Your task to perform on an android device: turn off javascript in the chrome app Image 0: 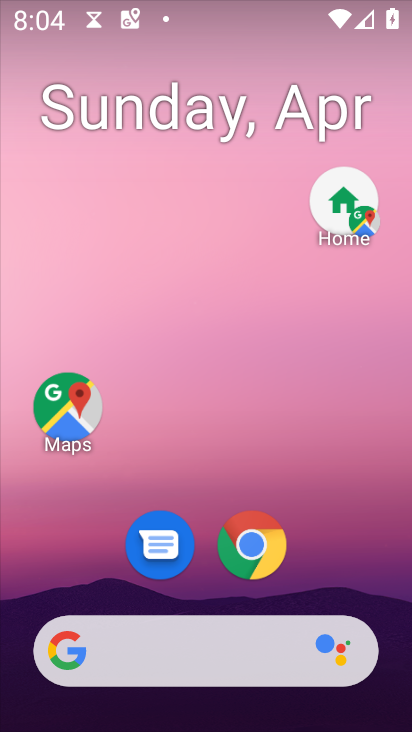
Step 0: drag from (298, 494) to (272, 268)
Your task to perform on an android device: turn off javascript in the chrome app Image 1: 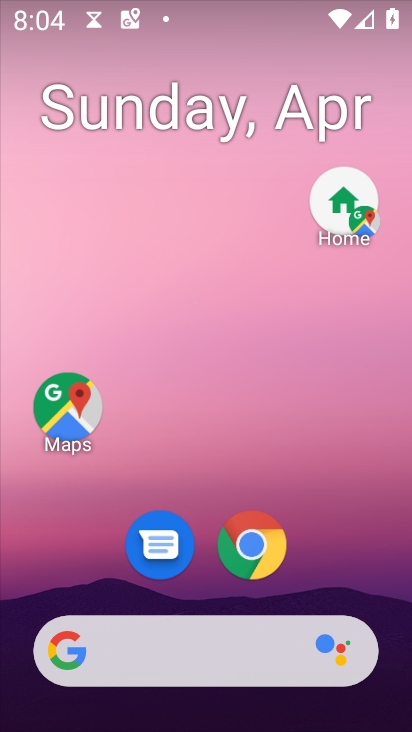
Step 1: drag from (330, 565) to (280, 218)
Your task to perform on an android device: turn off javascript in the chrome app Image 2: 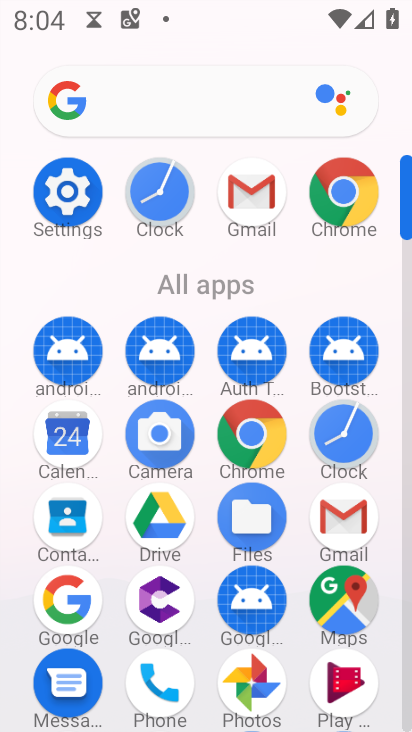
Step 2: click (254, 434)
Your task to perform on an android device: turn off javascript in the chrome app Image 3: 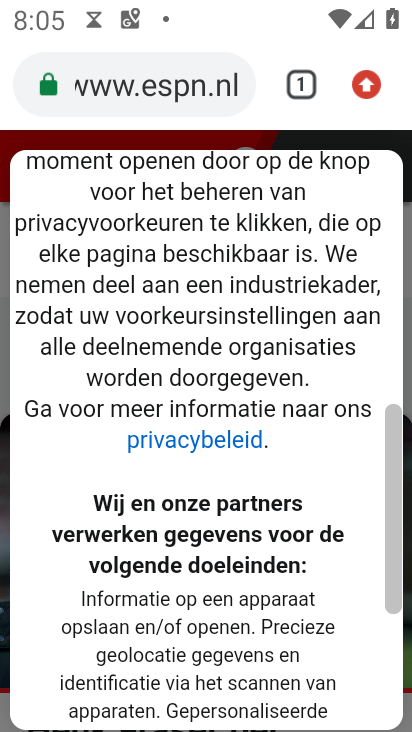
Step 3: click (368, 86)
Your task to perform on an android device: turn off javascript in the chrome app Image 4: 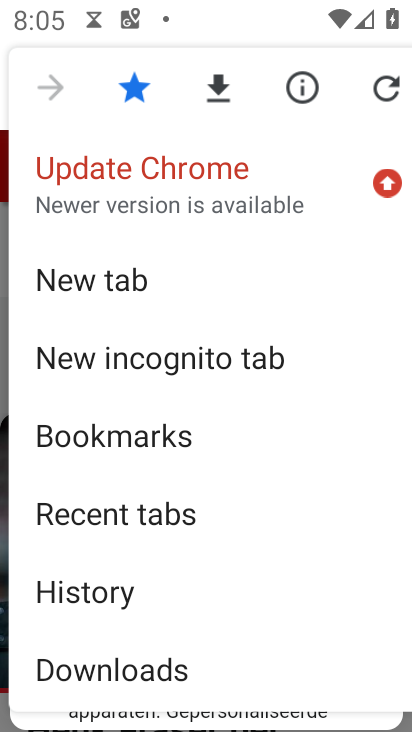
Step 4: drag from (226, 648) to (274, 221)
Your task to perform on an android device: turn off javascript in the chrome app Image 5: 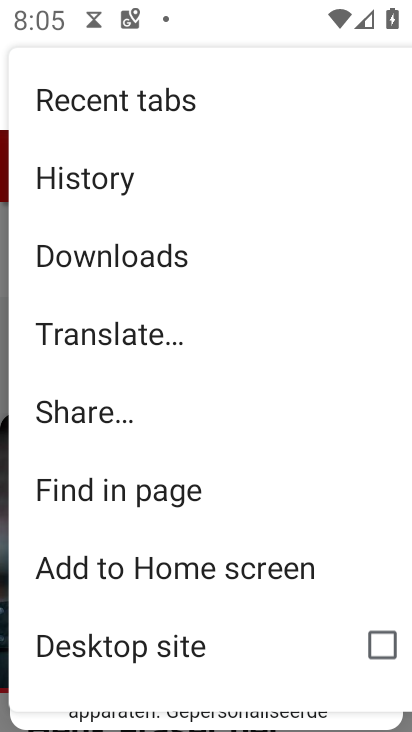
Step 5: drag from (189, 544) to (257, 183)
Your task to perform on an android device: turn off javascript in the chrome app Image 6: 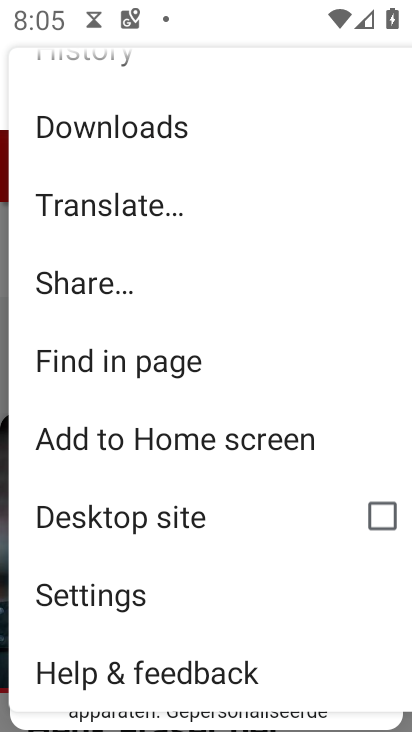
Step 6: click (118, 575)
Your task to perform on an android device: turn off javascript in the chrome app Image 7: 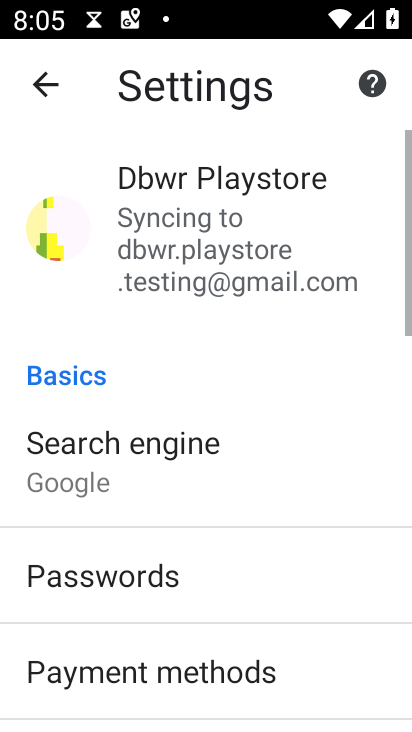
Step 7: drag from (234, 667) to (304, 174)
Your task to perform on an android device: turn off javascript in the chrome app Image 8: 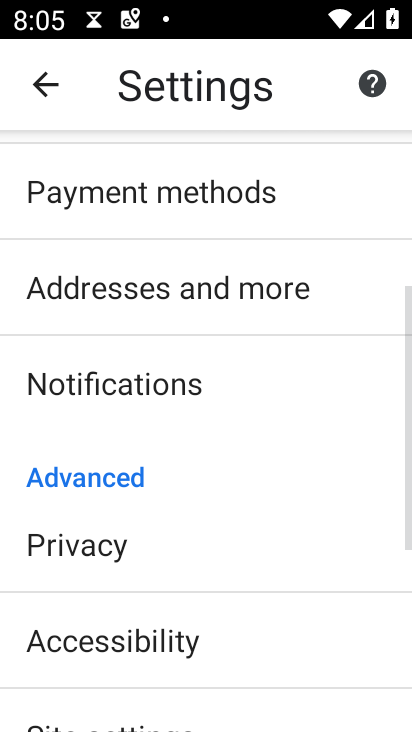
Step 8: drag from (243, 623) to (292, 250)
Your task to perform on an android device: turn off javascript in the chrome app Image 9: 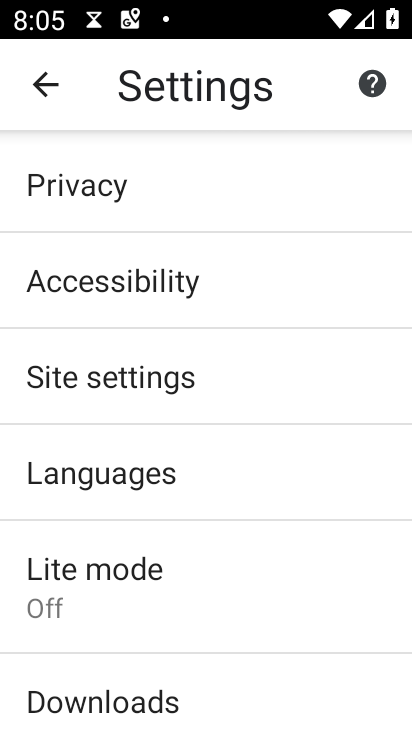
Step 9: click (150, 367)
Your task to perform on an android device: turn off javascript in the chrome app Image 10: 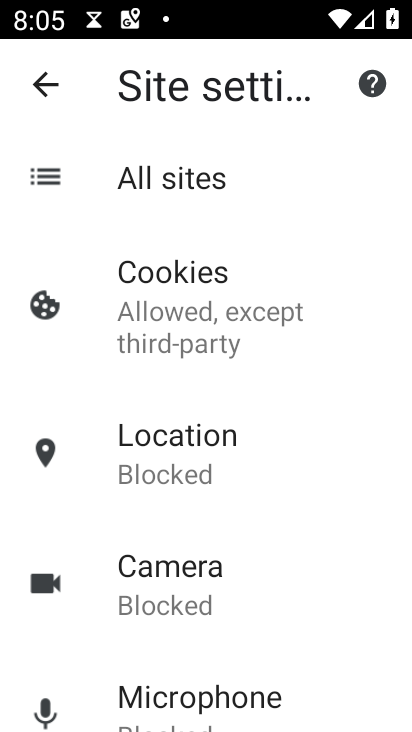
Step 10: drag from (243, 524) to (275, 243)
Your task to perform on an android device: turn off javascript in the chrome app Image 11: 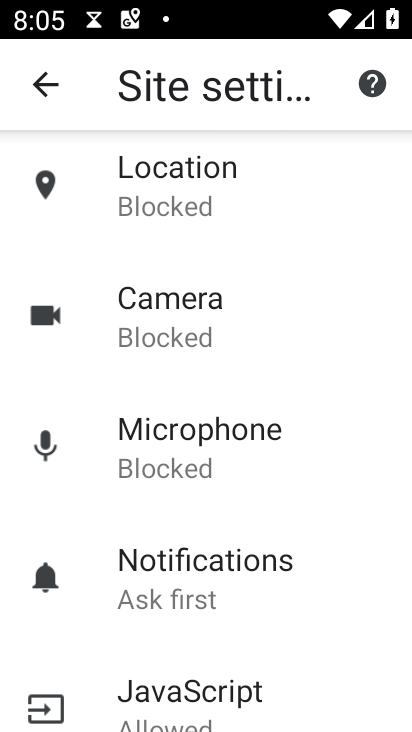
Step 11: drag from (220, 628) to (227, 496)
Your task to perform on an android device: turn off javascript in the chrome app Image 12: 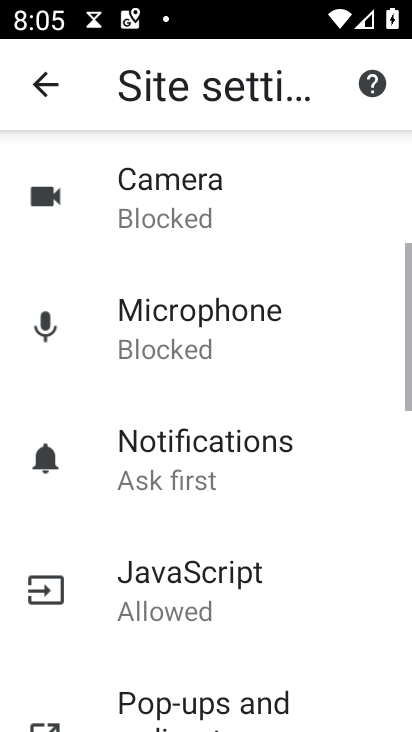
Step 12: click (185, 594)
Your task to perform on an android device: turn off javascript in the chrome app Image 13: 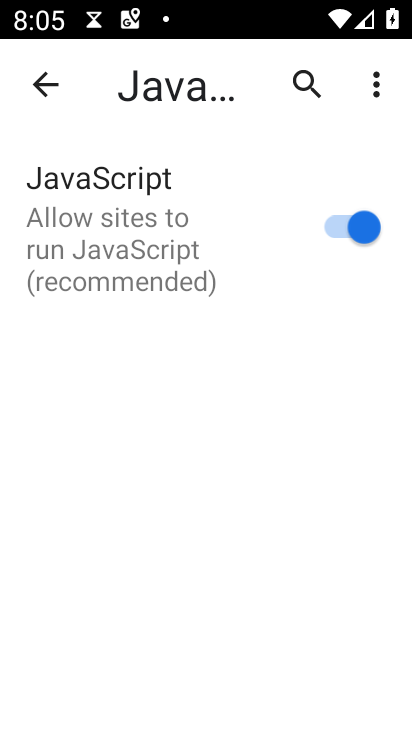
Step 13: click (340, 227)
Your task to perform on an android device: turn off javascript in the chrome app Image 14: 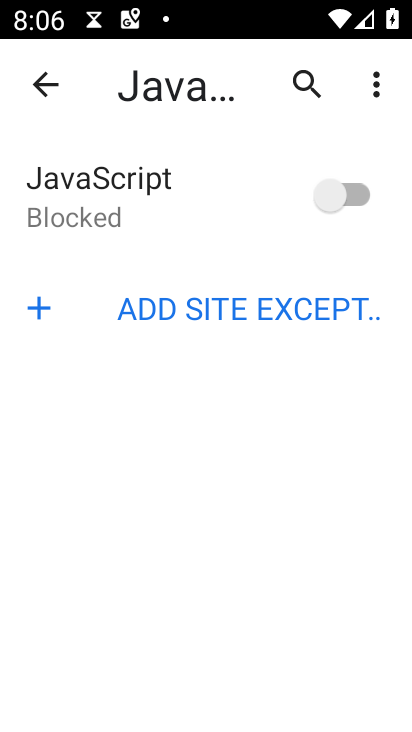
Step 14: task complete